Your task to perform on an android device: Set the phone to "Do not disturb". Image 0: 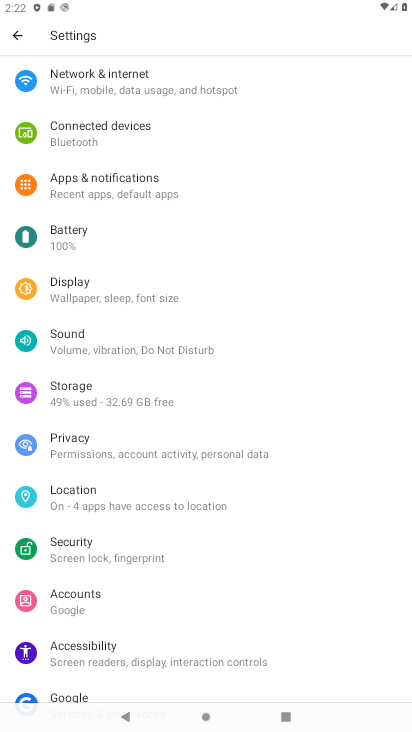
Step 0: click (113, 341)
Your task to perform on an android device: Set the phone to "Do not disturb". Image 1: 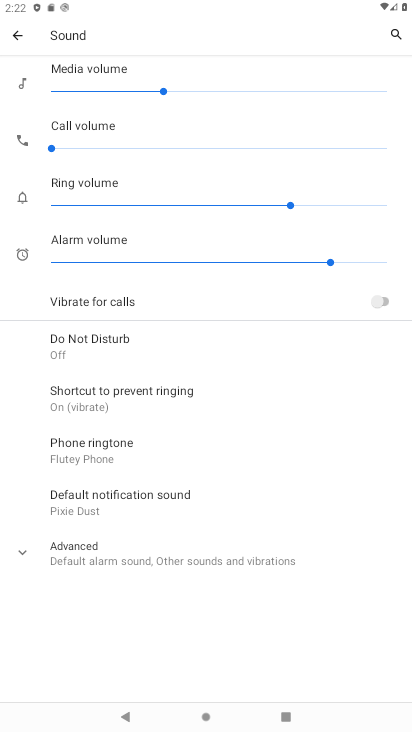
Step 1: click (121, 333)
Your task to perform on an android device: Set the phone to "Do not disturb". Image 2: 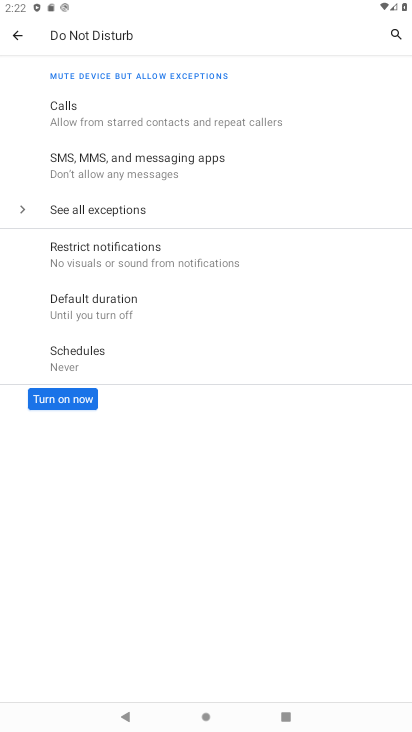
Step 2: click (61, 401)
Your task to perform on an android device: Set the phone to "Do not disturb". Image 3: 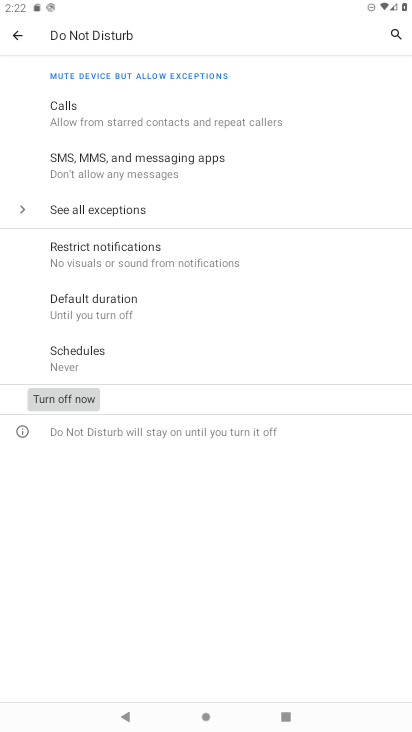
Step 3: task complete